Your task to perform on an android device: see sites visited before in the chrome app Image 0: 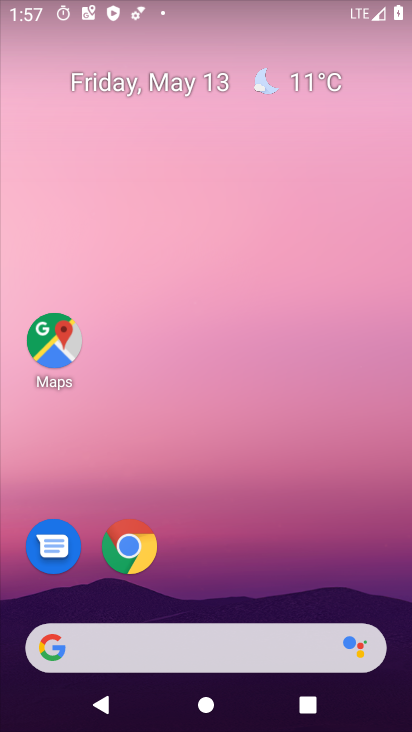
Step 0: drag from (274, 533) to (289, 122)
Your task to perform on an android device: see sites visited before in the chrome app Image 1: 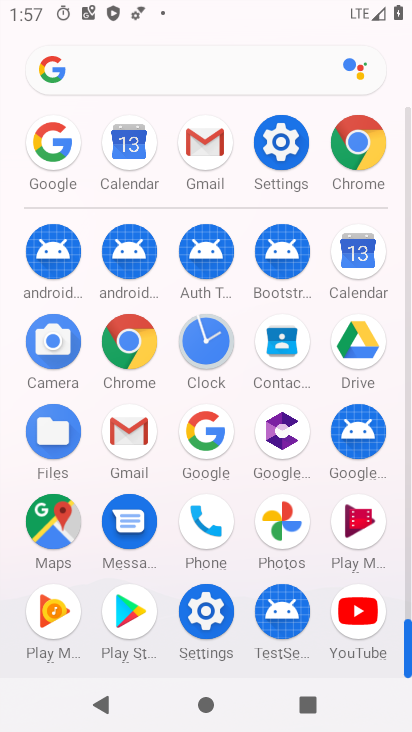
Step 1: click (357, 177)
Your task to perform on an android device: see sites visited before in the chrome app Image 2: 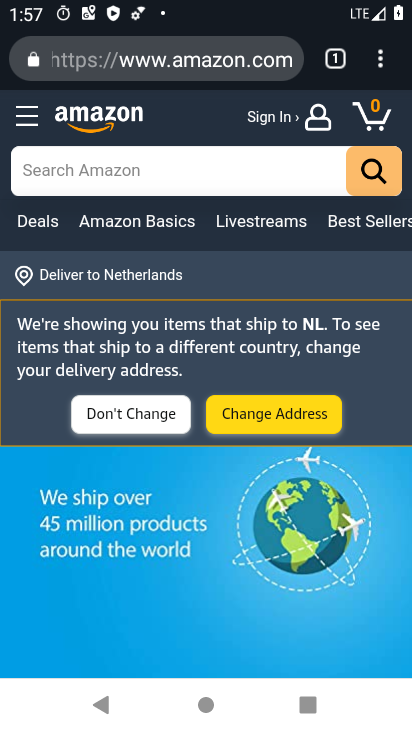
Step 2: task complete